Your task to perform on an android device: turn on data saver in the chrome app Image 0: 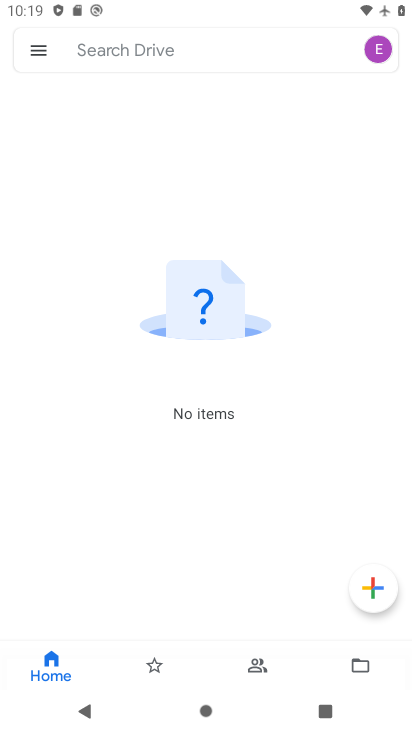
Step 0: press home button
Your task to perform on an android device: turn on data saver in the chrome app Image 1: 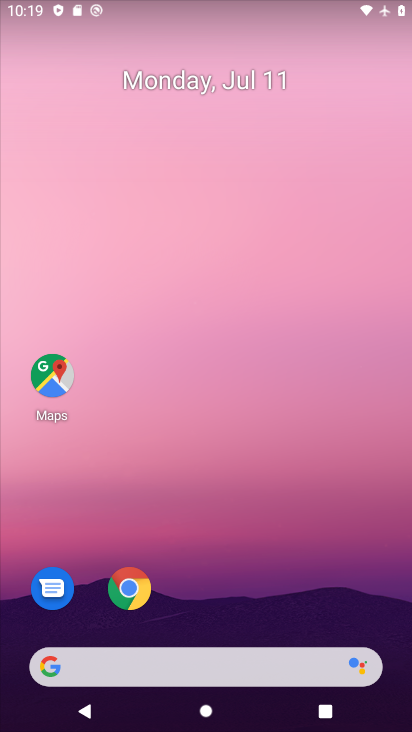
Step 1: click (127, 588)
Your task to perform on an android device: turn on data saver in the chrome app Image 2: 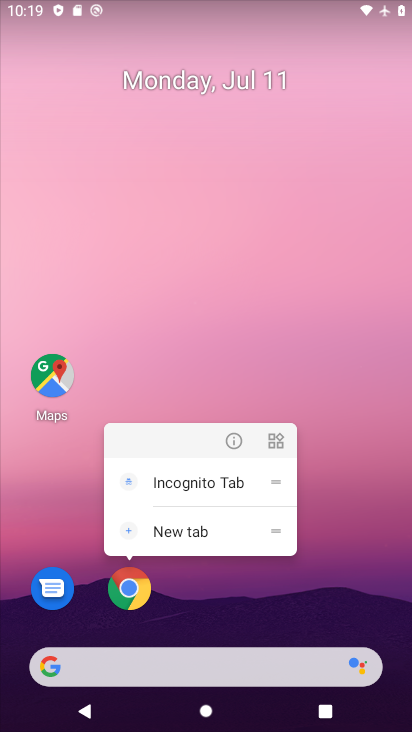
Step 2: click (132, 595)
Your task to perform on an android device: turn on data saver in the chrome app Image 3: 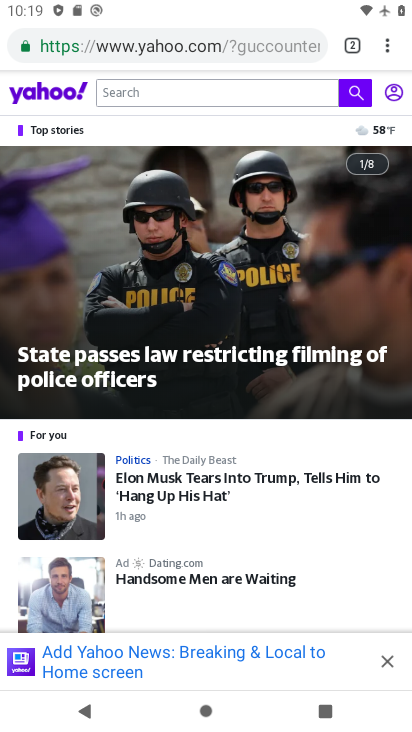
Step 3: drag from (389, 40) to (252, 545)
Your task to perform on an android device: turn on data saver in the chrome app Image 4: 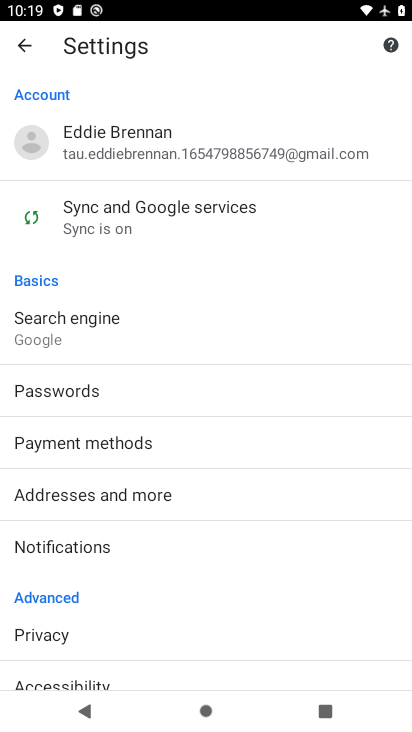
Step 4: drag from (172, 600) to (338, 192)
Your task to perform on an android device: turn on data saver in the chrome app Image 5: 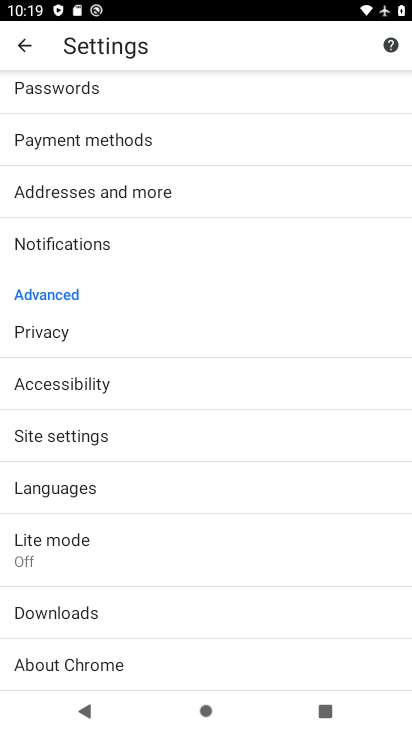
Step 5: click (118, 550)
Your task to perform on an android device: turn on data saver in the chrome app Image 6: 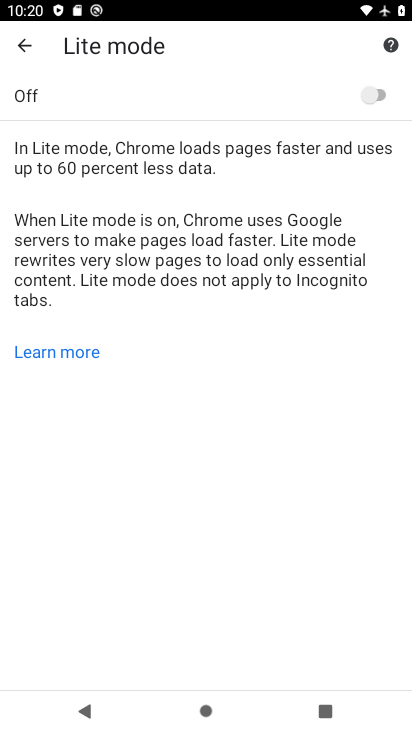
Step 6: click (383, 88)
Your task to perform on an android device: turn on data saver in the chrome app Image 7: 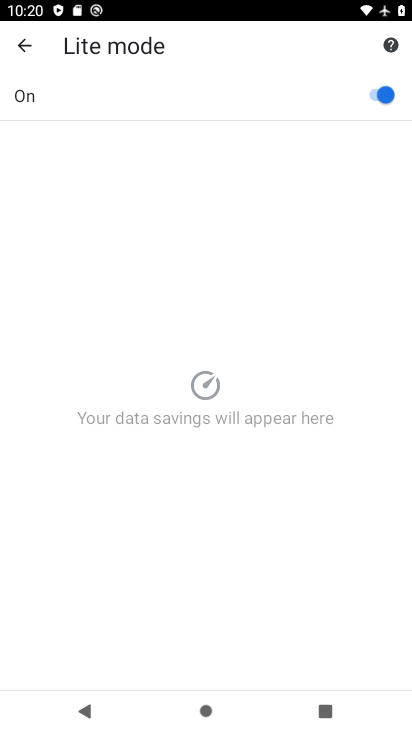
Step 7: task complete